Your task to perform on an android device: Open privacy settings Image 0: 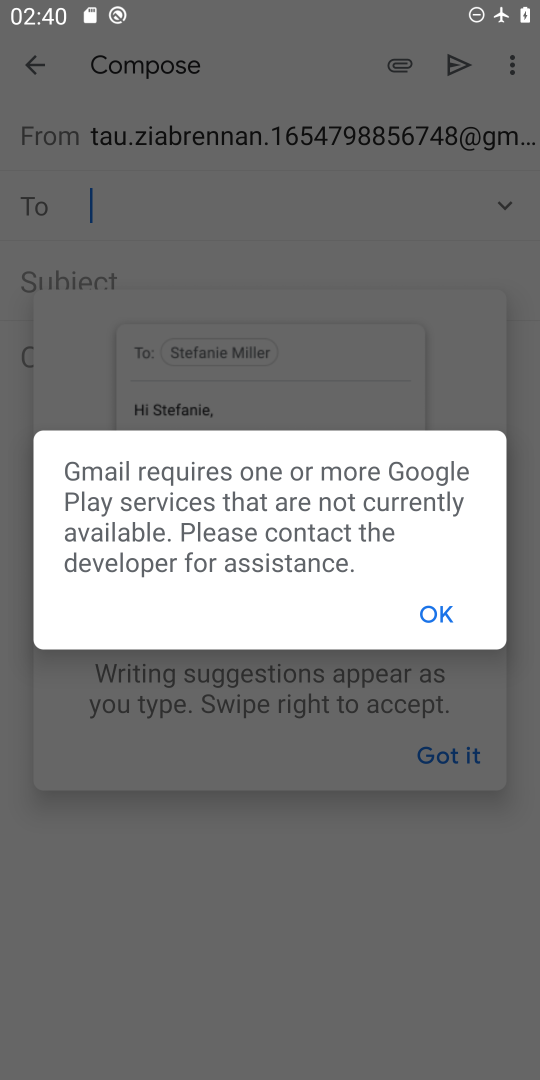
Step 0: press home button
Your task to perform on an android device: Open privacy settings Image 1: 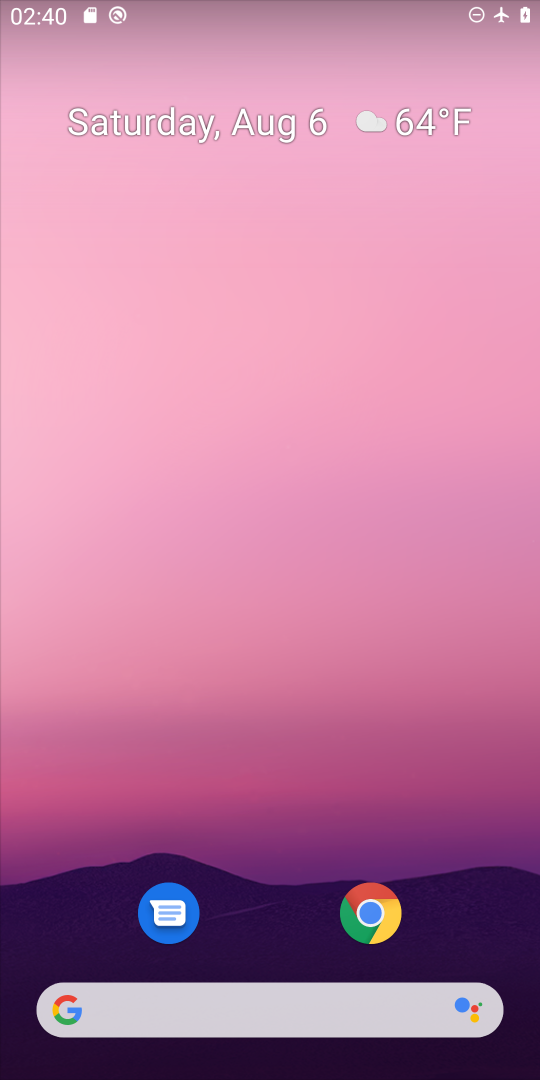
Step 1: drag from (435, 914) to (436, 256)
Your task to perform on an android device: Open privacy settings Image 2: 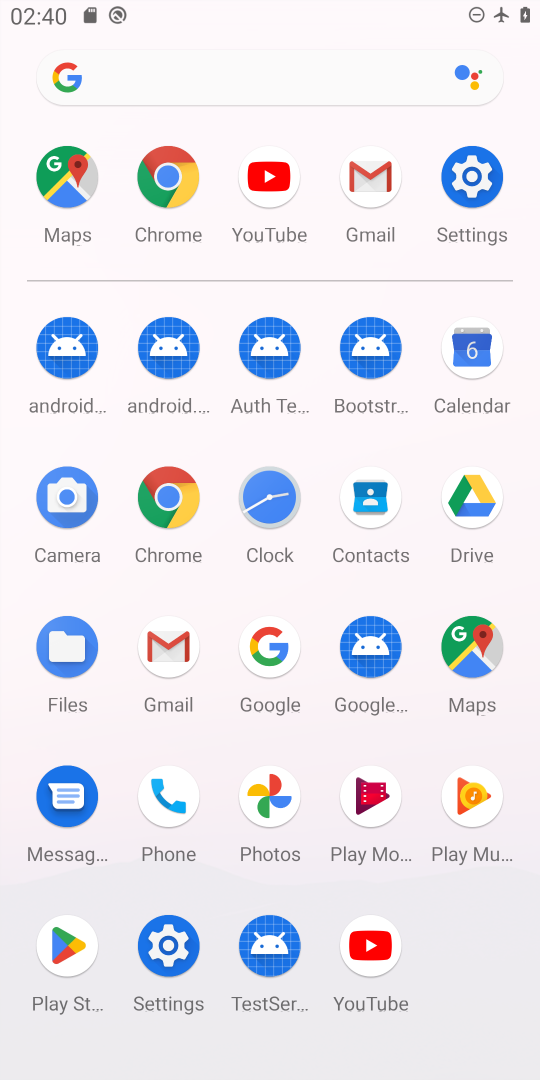
Step 2: click (474, 177)
Your task to perform on an android device: Open privacy settings Image 3: 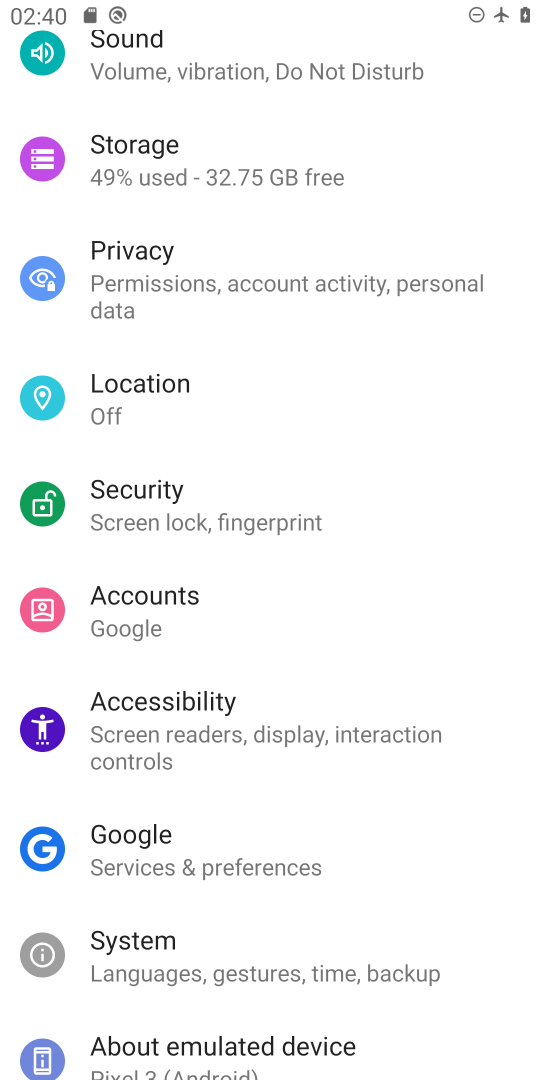
Step 3: drag from (487, 631) to (484, 476)
Your task to perform on an android device: Open privacy settings Image 4: 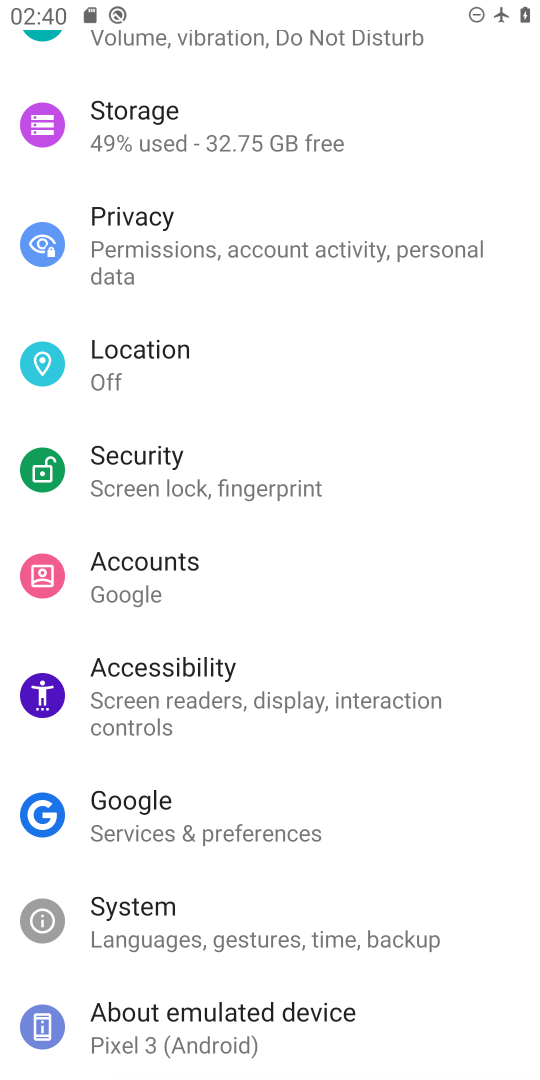
Step 4: drag from (461, 668) to (461, 526)
Your task to perform on an android device: Open privacy settings Image 5: 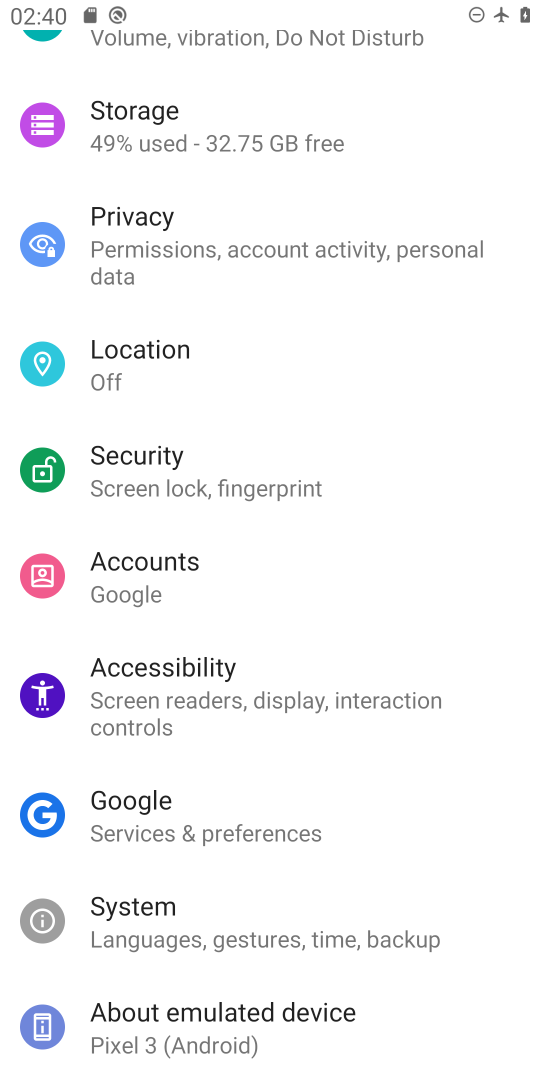
Step 5: drag from (388, 819) to (397, 723)
Your task to perform on an android device: Open privacy settings Image 6: 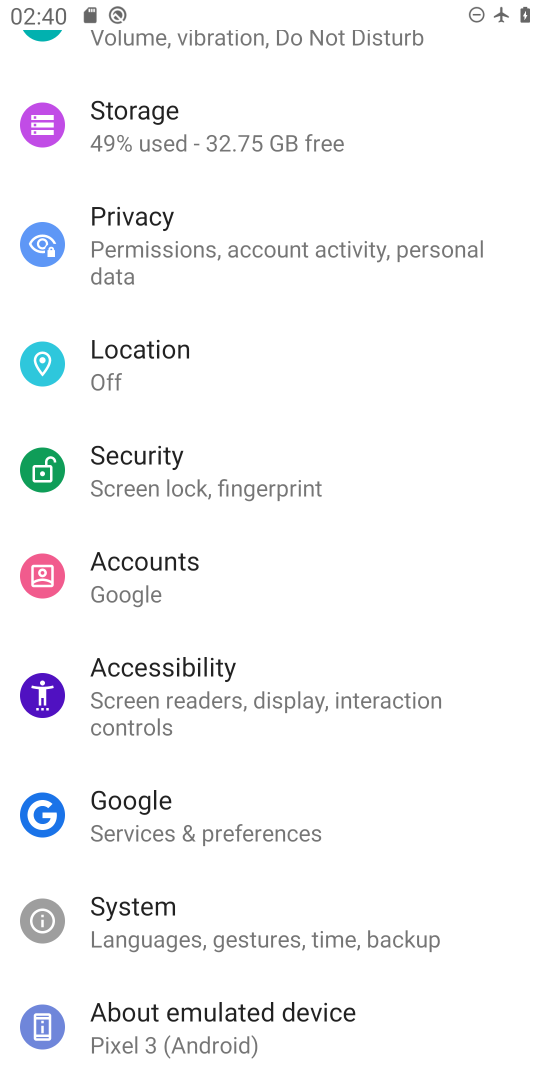
Step 6: drag from (429, 510) to (436, 644)
Your task to perform on an android device: Open privacy settings Image 7: 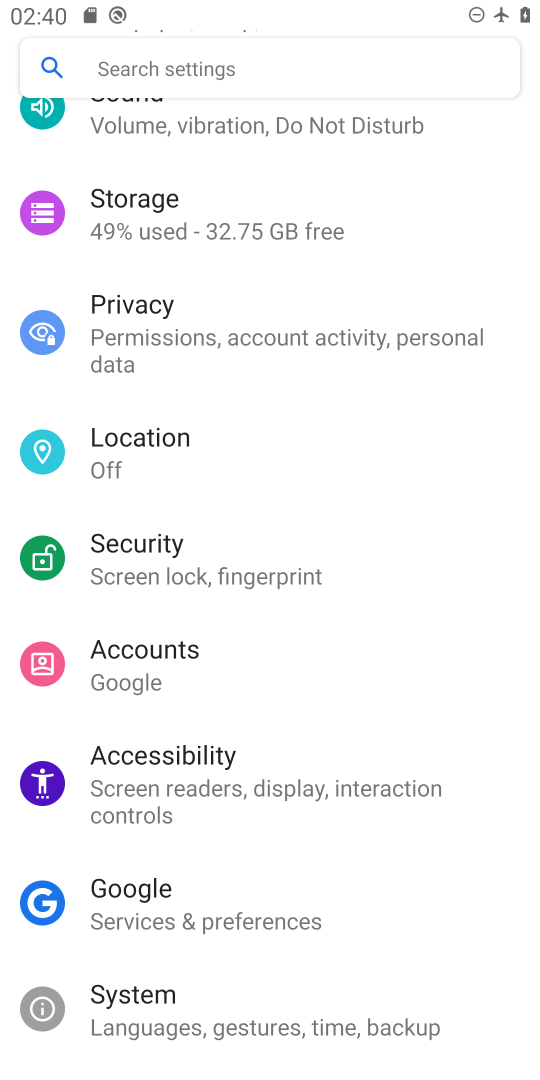
Step 7: drag from (462, 498) to (462, 644)
Your task to perform on an android device: Open privacy settings Image 8: 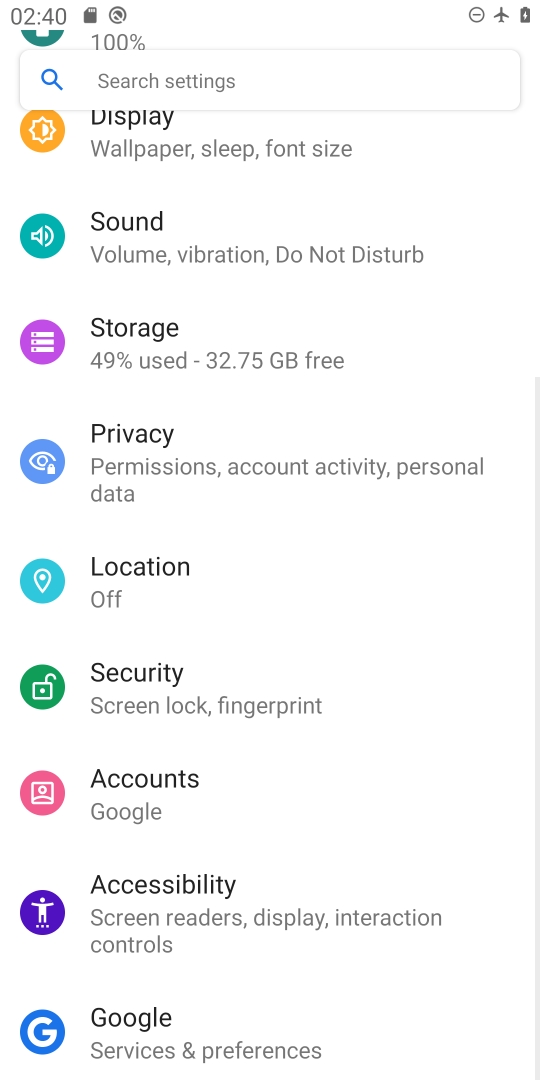
Step 8: drag from (475, 508) to (475, 645)
Your task to perform on an android device: Open privacy settings Image 9: 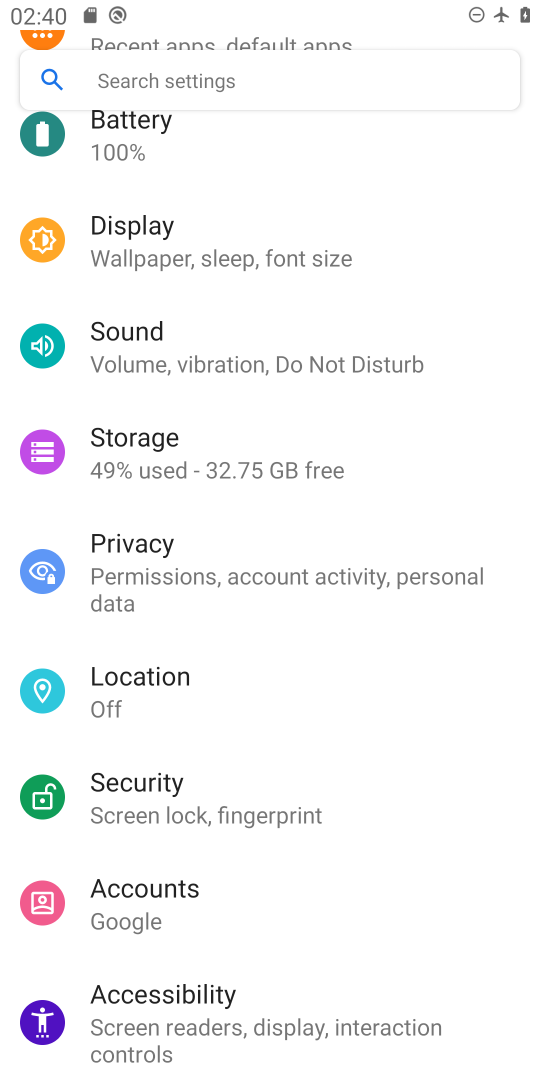
Step 9: click (427, 582)
Your task to perform on an android device: Open privacy settings Image 10: 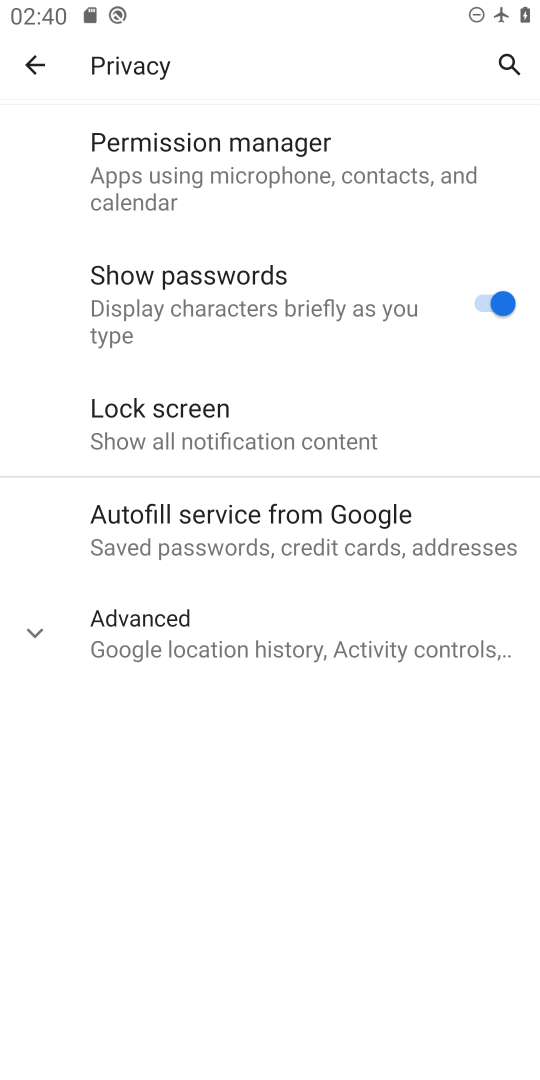
Step 10: task complete